Your task to perform on an android device: Set the phone to "Do not disturb". Image 0: 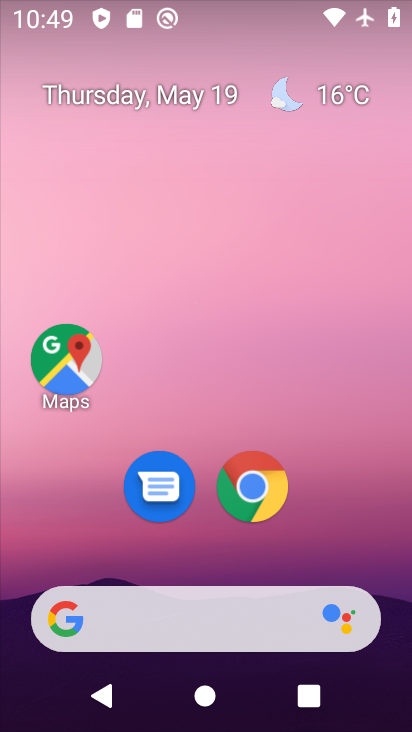
Step 0: drag from (348, 532) to (365, 138)
Your task to perform on an android device: Set the phone to "Do not disturb". Image 1: 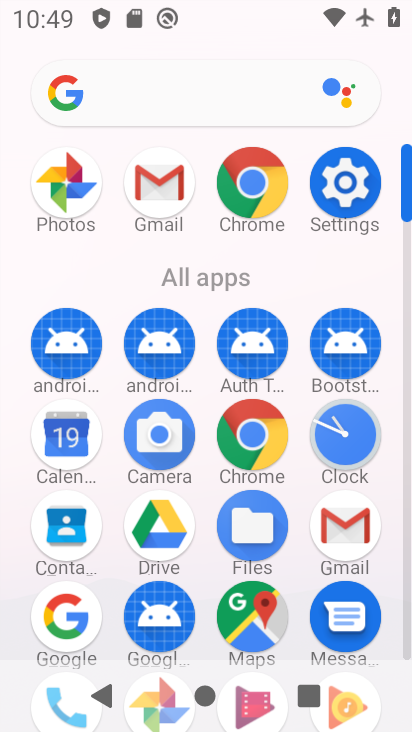
Step 1: click (352, 195)
Your task to perform on an android device: Set the phone to "Do not disturb". Image 2: 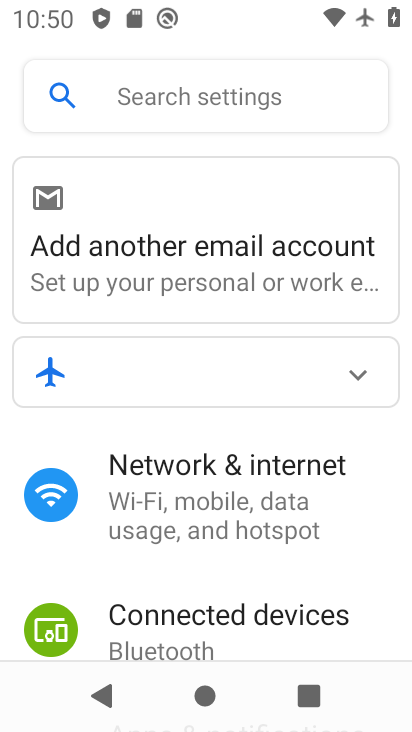
Step 2: drag from (294, 401) to (313, 182)
Your task to perform on an android device: Set the phone to "Do not disturb". Image 3: 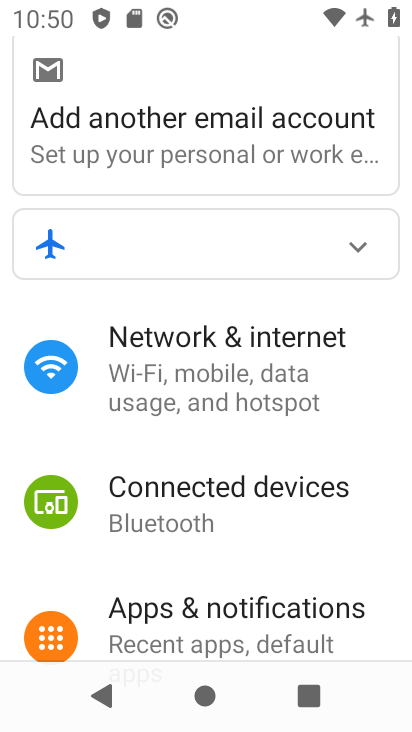
Step 3: drag from (247, 571) to (264, 369)
Your task to perform on an android device: Set the phone to "Do not disturb". Image 4: 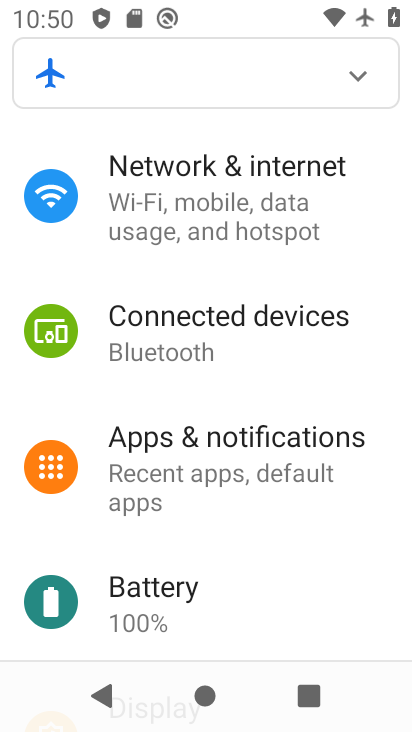
Step 4: drag from (263, 593) to (269, 367)
Your task to perform on an android device: Set the phone to "Do not disturb". Image 5: 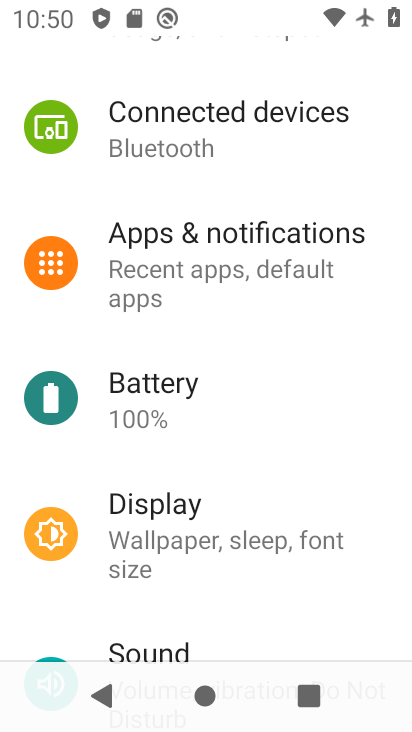
Step 5: click (201, 628)
Your task to perform on an android device: Set the phone to "Do not disturb". Image 6: 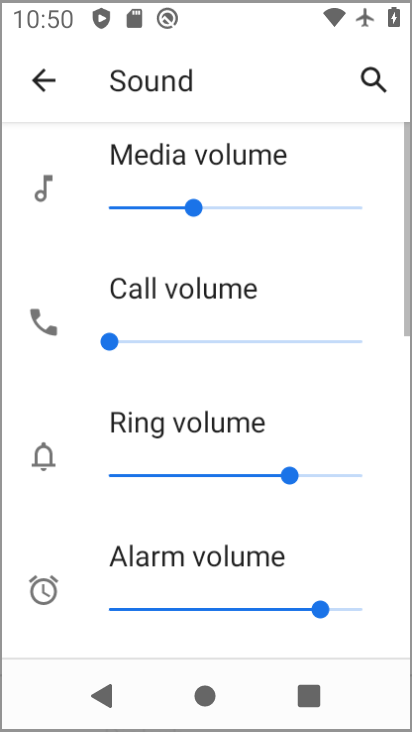
Step 6: task complete